Your task to perform on an android device: Go to sound settings Image 0: 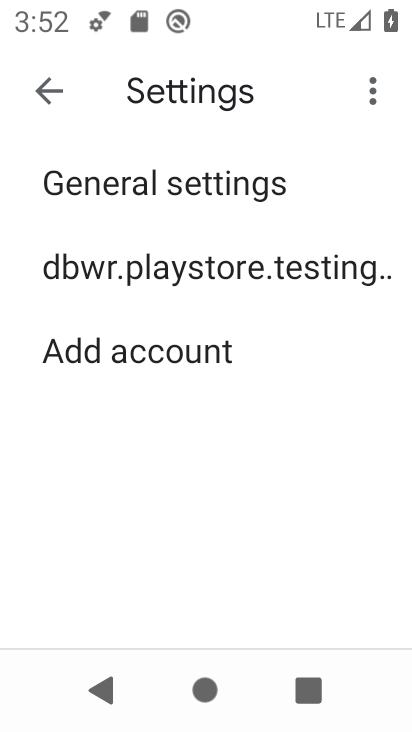
Step 0: press home button
Your task to perform on an android device: Go to sound settings Image 1: 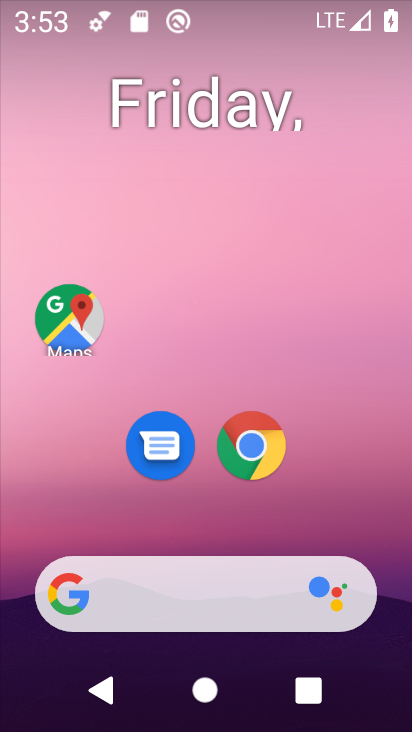
Step 1: drag from (388, 544) to (313, 245)
Your task to perform on an android device: Go to sound settings Image 2: 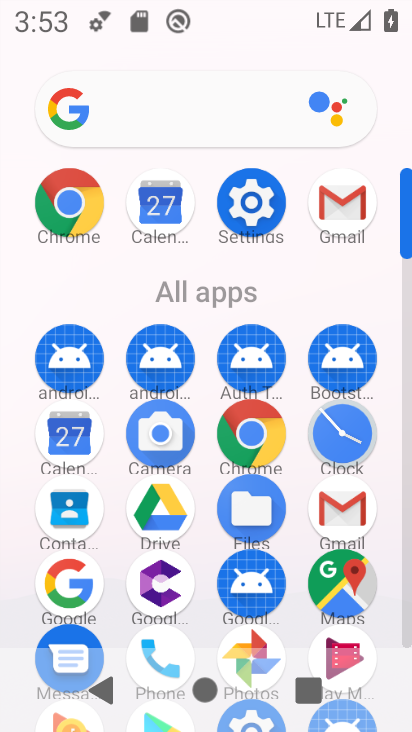
Step 2: click (245, 174)
Your task to perform on an android device: Go to sound settings Image 3: 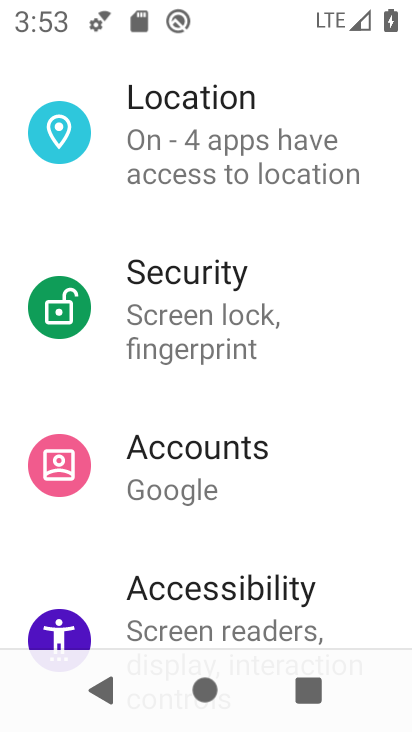
Step 3: drag from (216, 165) to (216, 556)
Your task to perform on an android device: Go to sound settings Image 4: 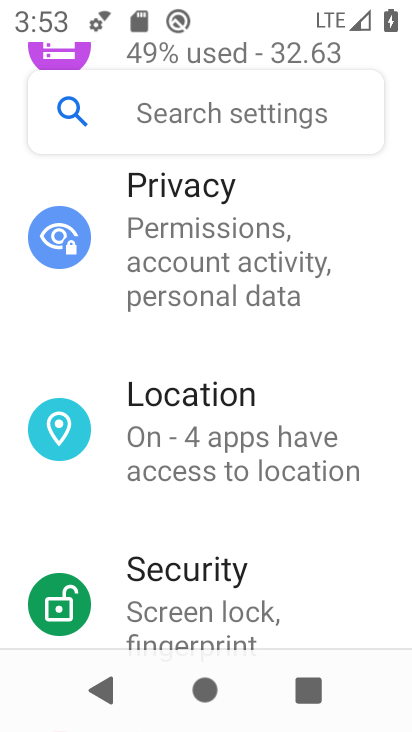
Step 4: drag from (206, 288) to (201, 650)
Your task to perform on an android device: Go to sound settings Image 5: 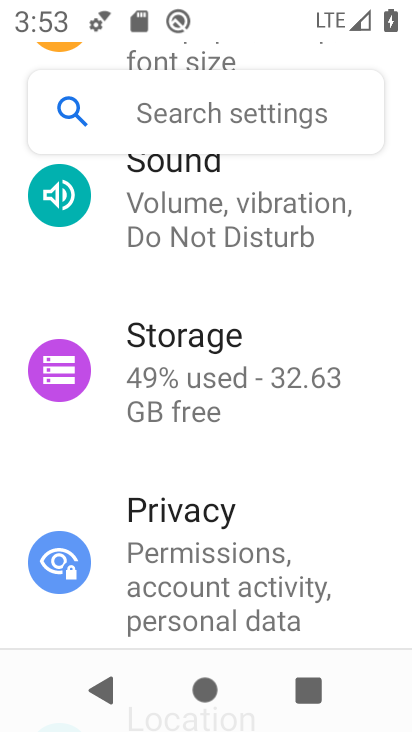
Step 5: click (200, 201)
Your task to perform on an android device: Go to sound settings Image 6: 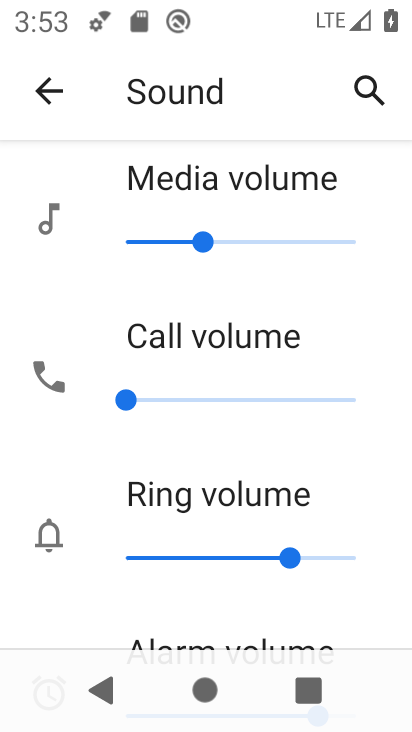
Step 6: task complete